Your task to perform on an android device: Go to network settings Image 0: 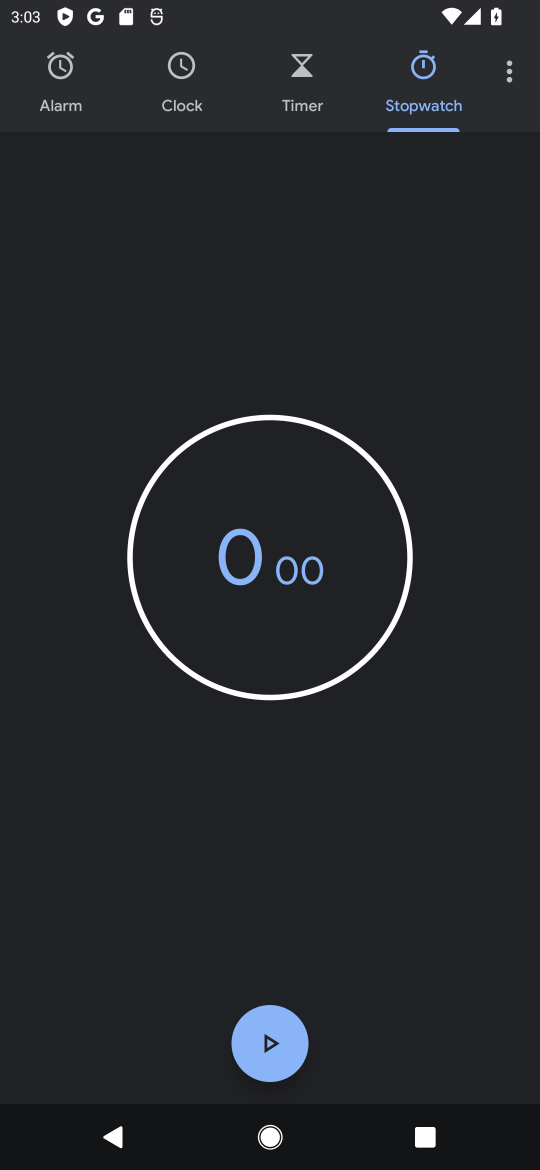
Step 0: press home button
Your task to perform on an android device: Go to network settings Image 1: 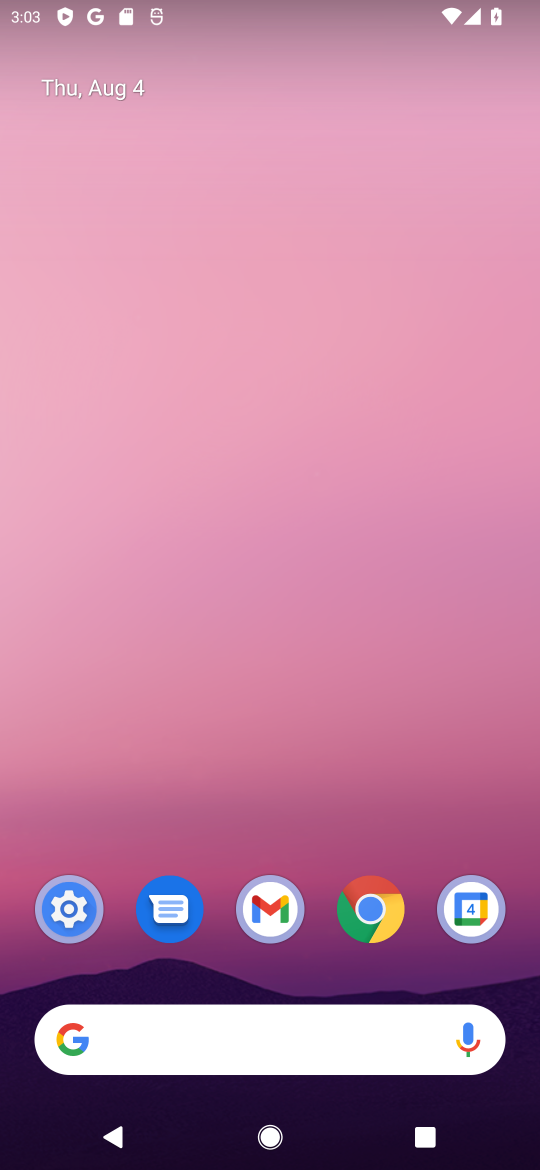
Step 1: click (63, 914)
Your task to perform on an android device: Go to network settings Image 2: 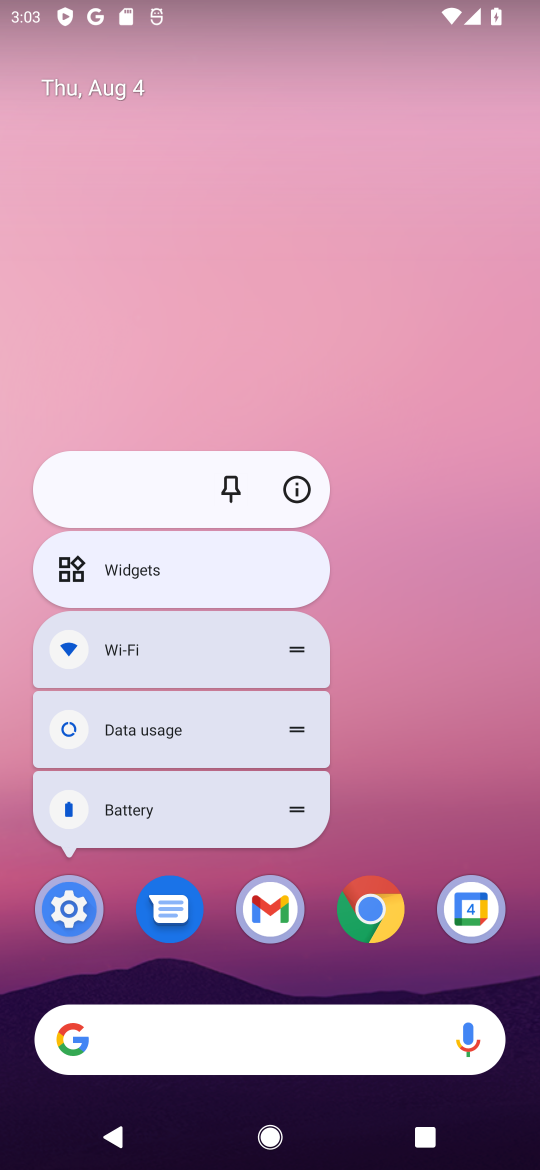
Step 2: click (63, 913)
Your task to perform on an android device: Go to network settings Image 3: 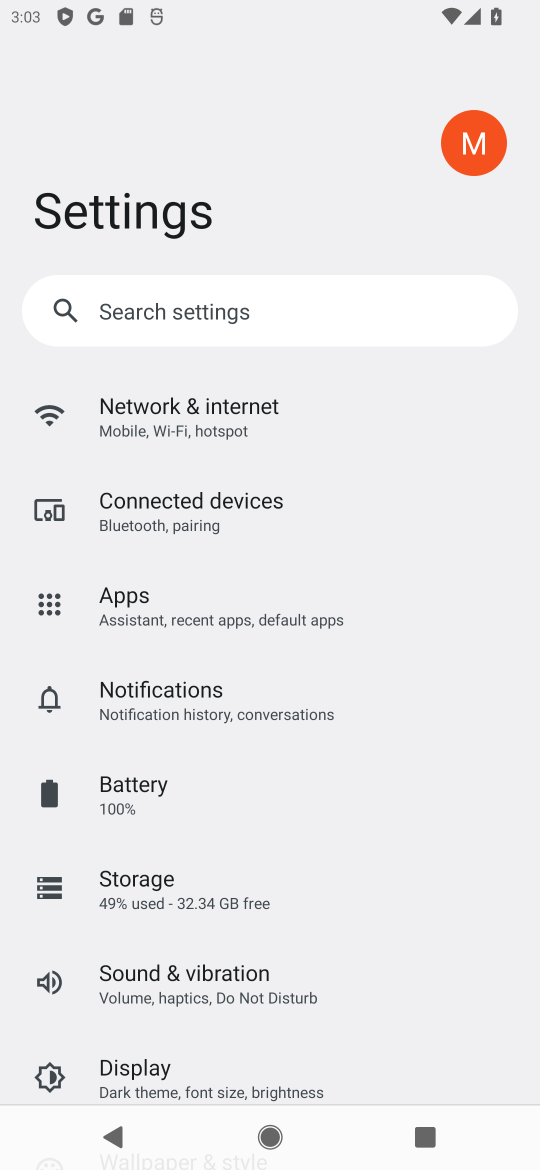
Step 3: click (199, 410)
Your task to perform on an android device: Go to network settings Image 4: 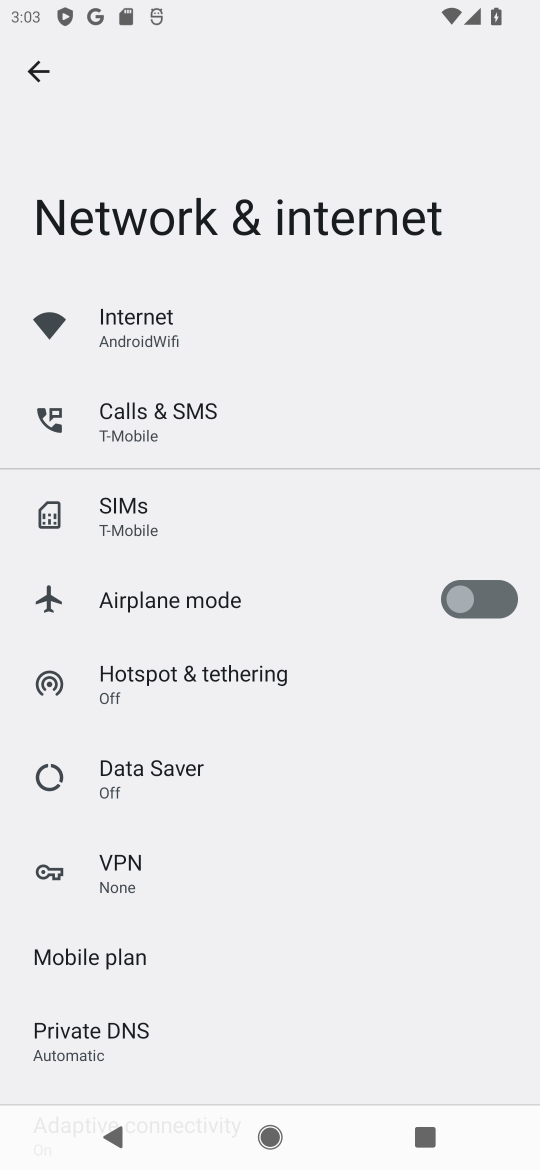
Step 4: task complete